Your task to perform on an android device: check google app version Image 0: 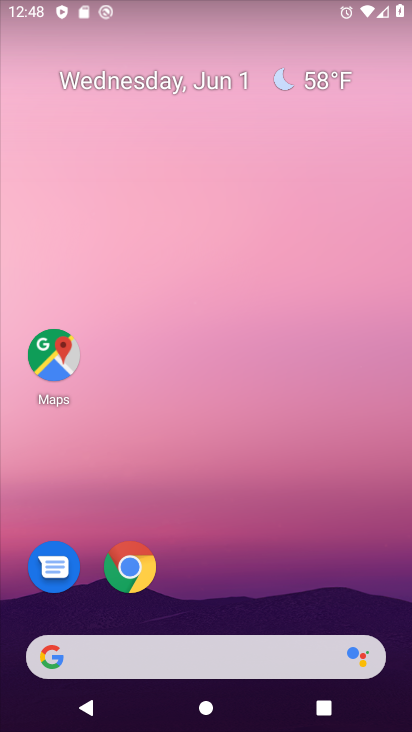
Step 0: drag from (247, 578) to (262, 77)
Your task to perform on an android device: check google app version Image 1: 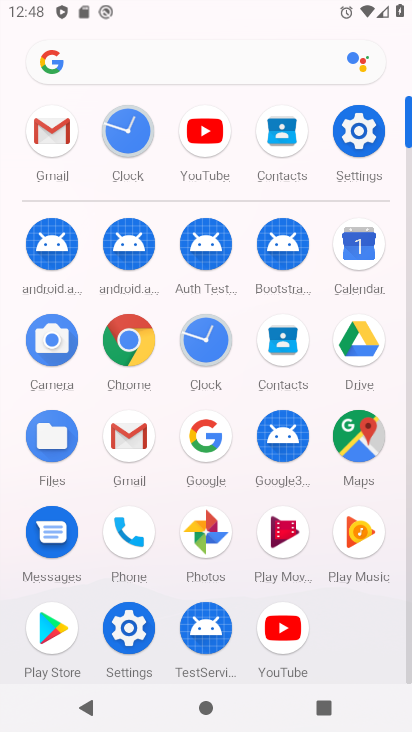
Step 1: click (202, 427)
Your task to perform on an android device: check google app version Image 2: 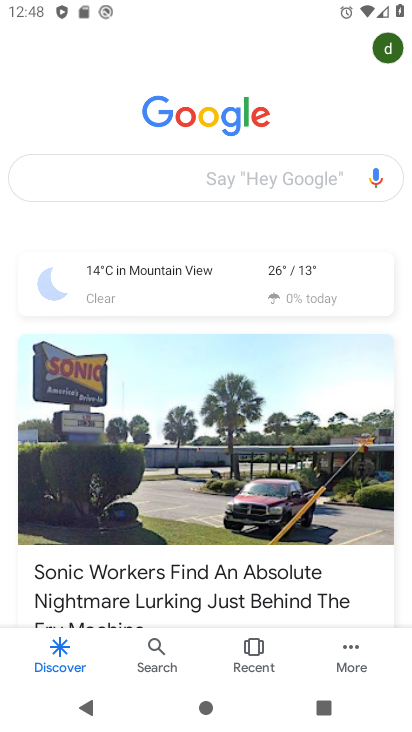
Step 2: click (349, 651)
Your task to perform on an android device: check google app version Image 3: 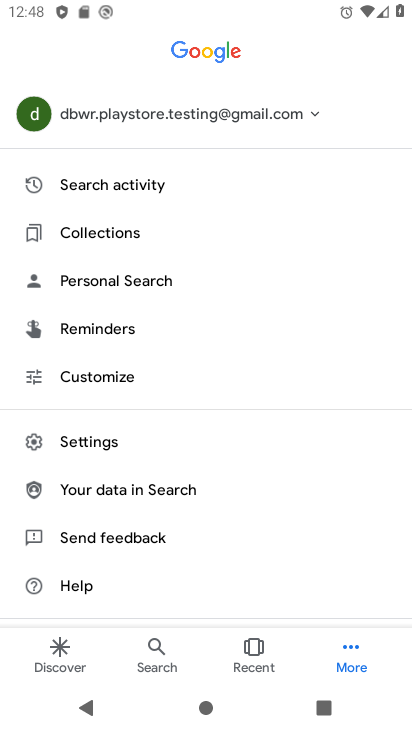
Step 3: click (83, 440)
Your task to perform on an android device: check google app version Image 4: 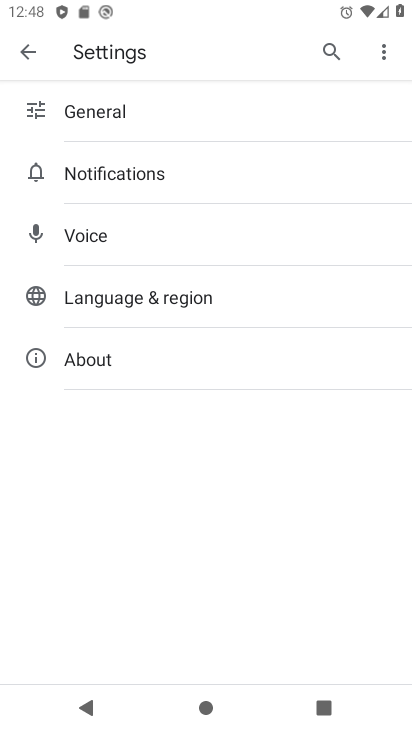
Step 4: click (79, 354)
Your task to perform on an android device: check google app version Image 5: 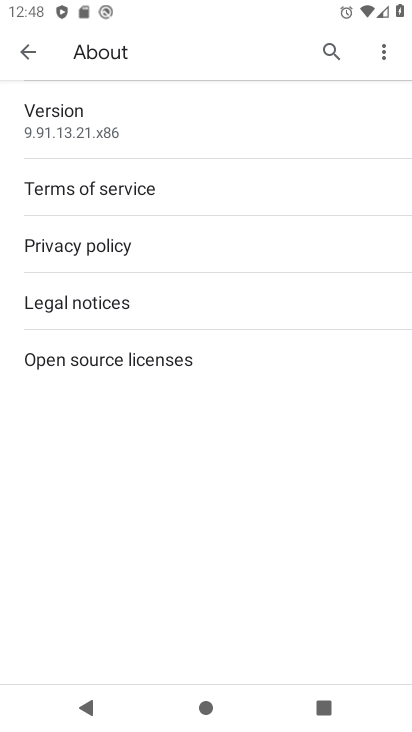
Step 5: task complete